Your task to perform on an android device: Search for sushi restaurants on Maps Image 0: 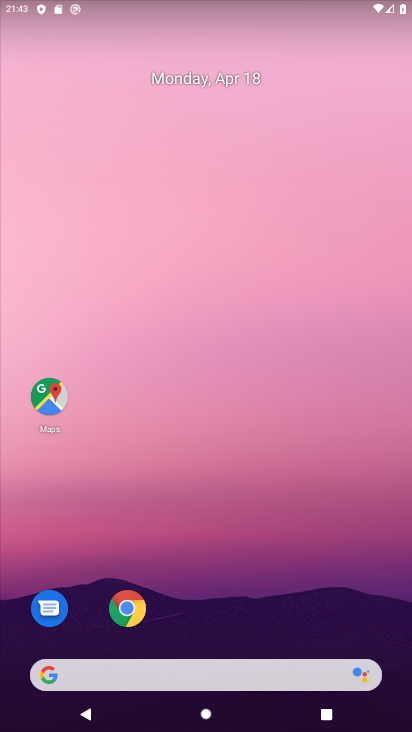
Step 0: drag from (234, 616) to (231, 186)
Your task to perform on an android device: Search for sushi restaurants on Maps Image 1: 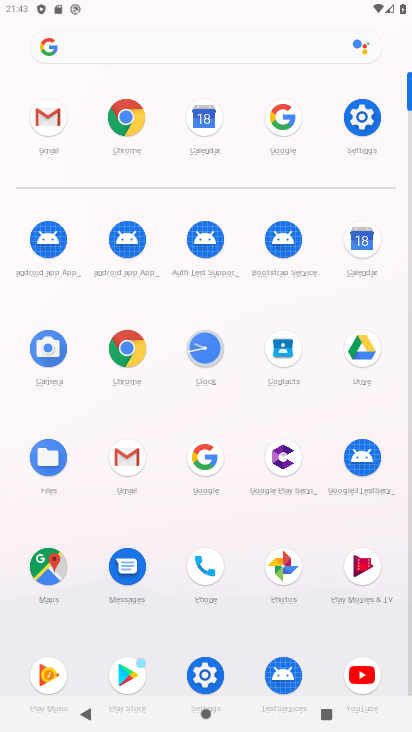
Step 1: click (42, 562)
Your task to perform on an android device: Search for sushi restaurants on Maps Image 2: 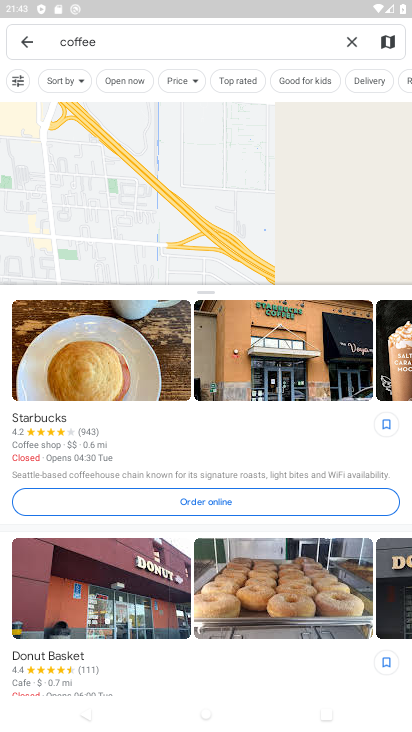
Step 2: click (349, 38)
Your task to perform on an android device: Search for sushi restaurants on Maps Image 3: 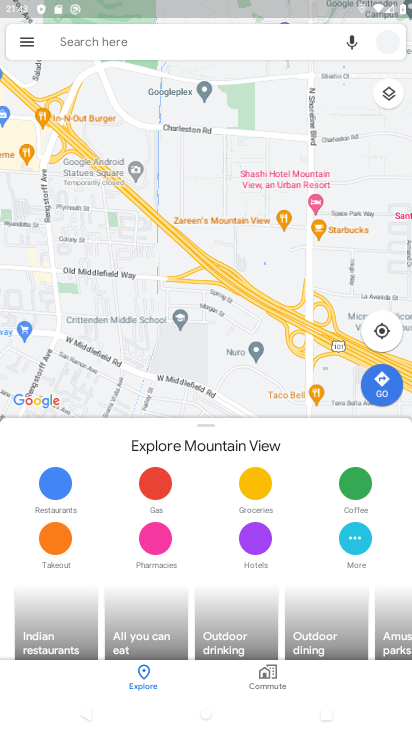
Step 3: click (177, 40)
Your task to perform on an android device: Search for sushi restaurants on Maps Image 4: 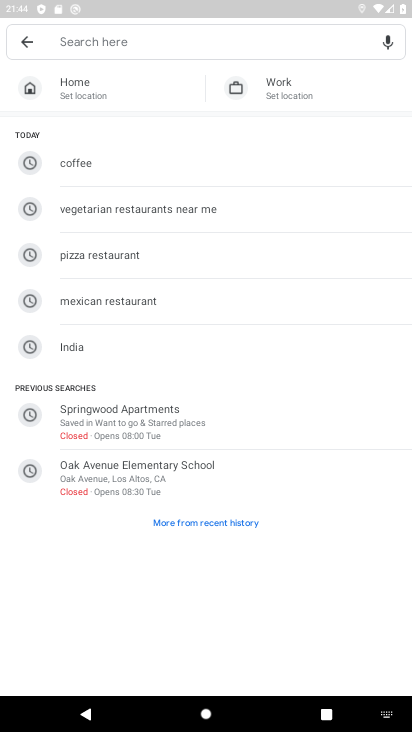
Step 4: type "sushi restaurent"
Your task to perform on an android device: Search for sushi restaurants on Maps Image 5: 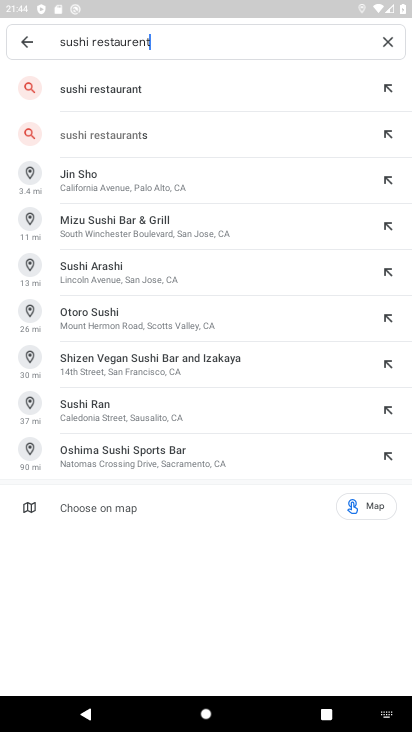
Step 5: click (120, 82)
Your task to perform on an android device: Search for sushi restaurants on Maps Image 6: 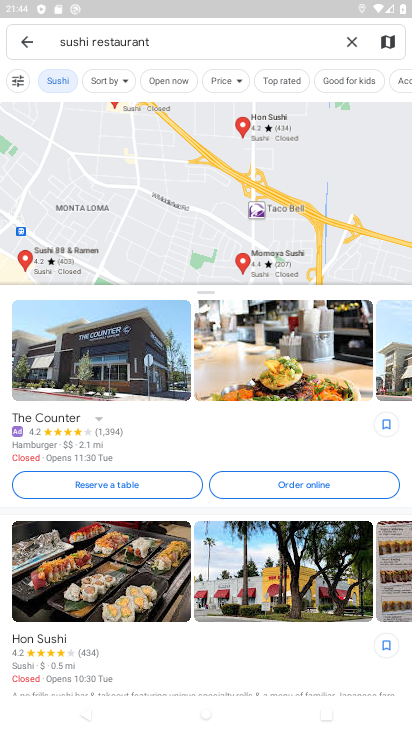
Step 6: task complete